Your task to perform on an android device: turn off sleep mode Image 0: 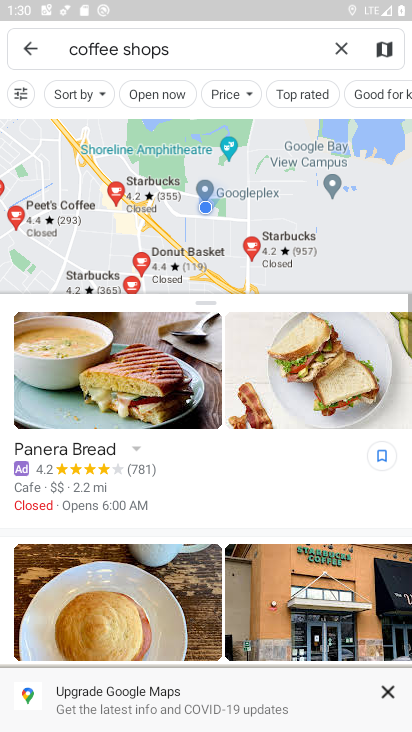
Step 0: press home button
Your task to perform on an android device: turn off sleep mode Image 1: 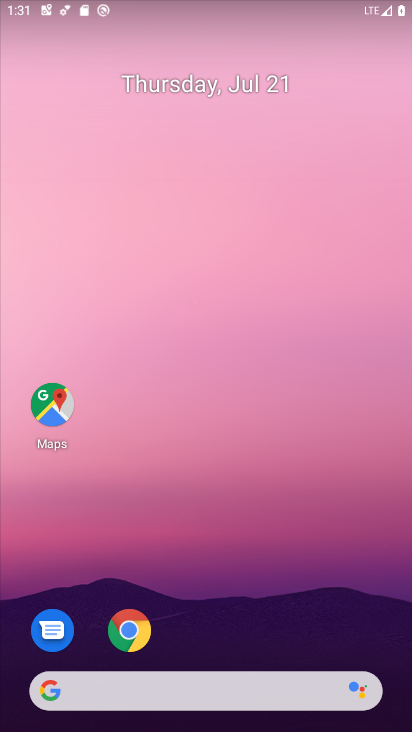
Step 1: drag from (275, 451) to (366, 326)
Your task to perform on an android device: turn off sleep mode Image 2: 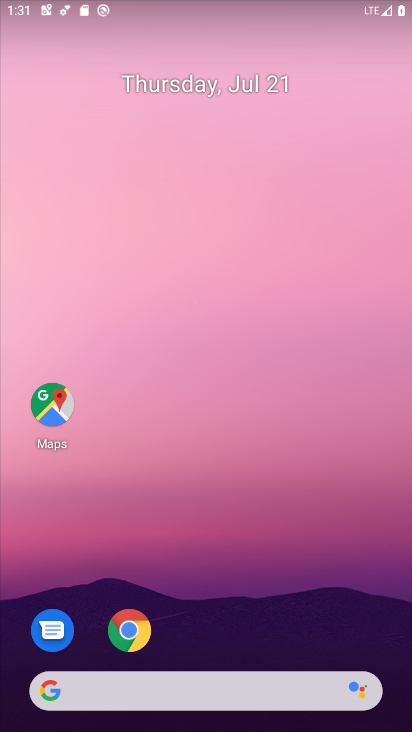
Step 2: drag from (237, 537) to (230, 205)
Your task to perform on an android device: turn off sleep mode Image 3: 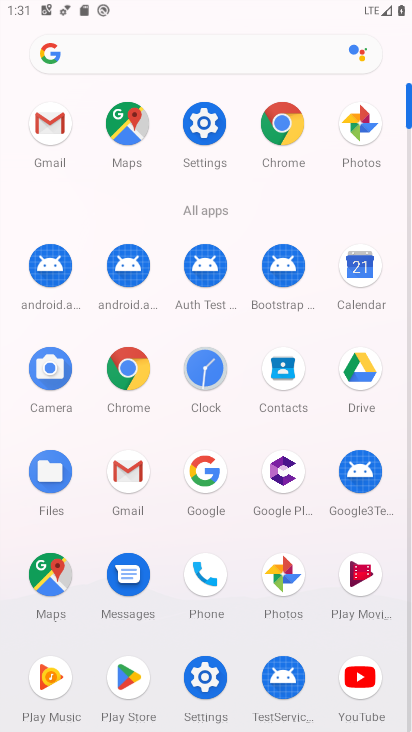
Step 3: click (207, 688)
Your task to perform on an android device: turn off sleep mode Image 4: 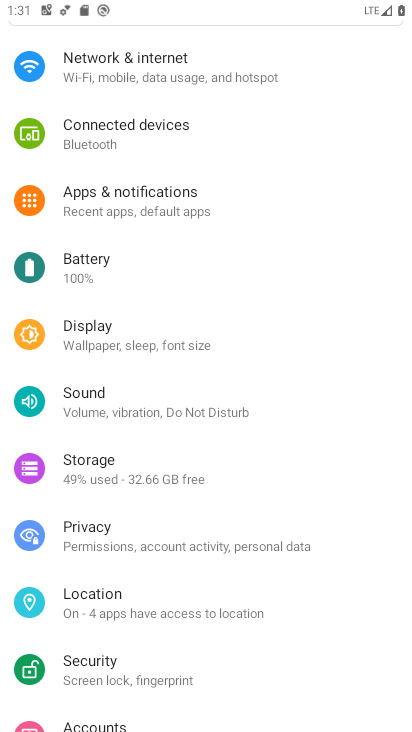
Step 4: click (99, 337)
Your task to perform on an android device: turn off sleep mode Image 5: 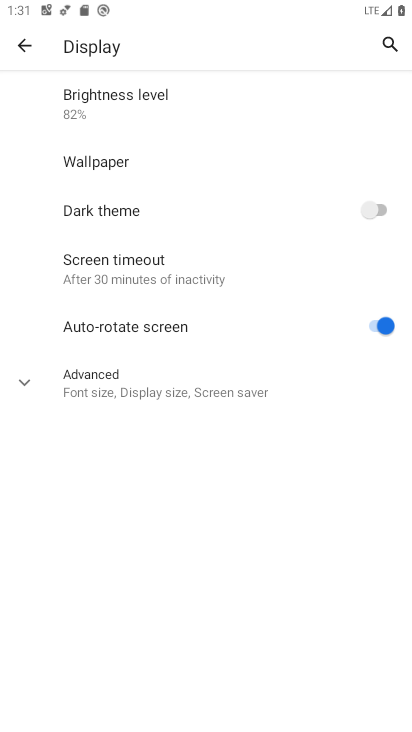
Step 5: task complete